Your task to perform on an android device: toggle sleep mode Image 0: 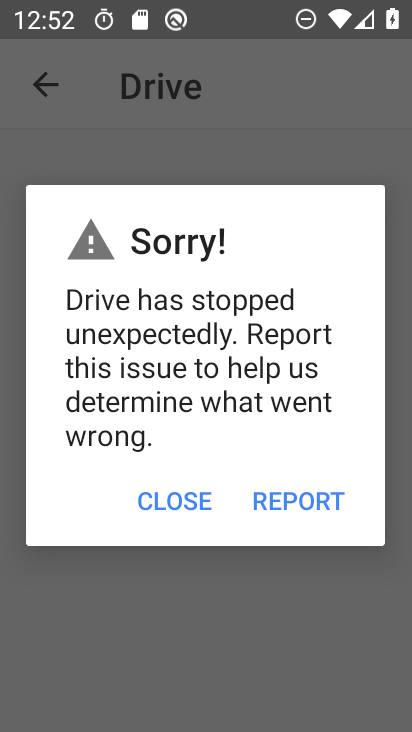
Step 0: press home button
Your task to perform on an android device: toggle sleep mode Image 1: 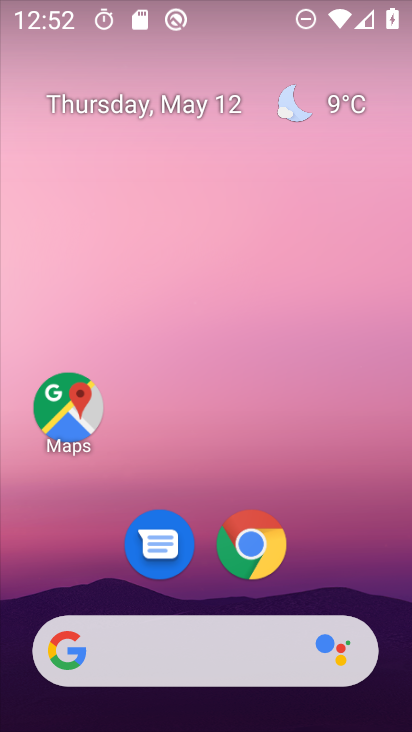
Step 1: drag from (221, 726) to (230, 75)
Your task to perform on an android device: toggle sleep mode Image 2: 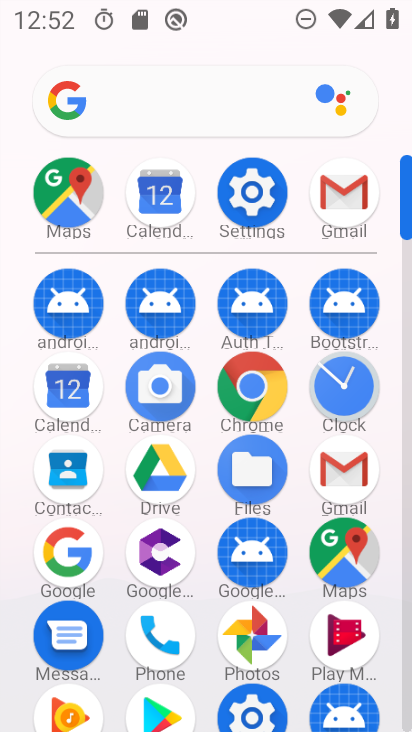
Step 2: click (247, 195)
Your task to perform on an android device: toggle sleep mode Image 3: 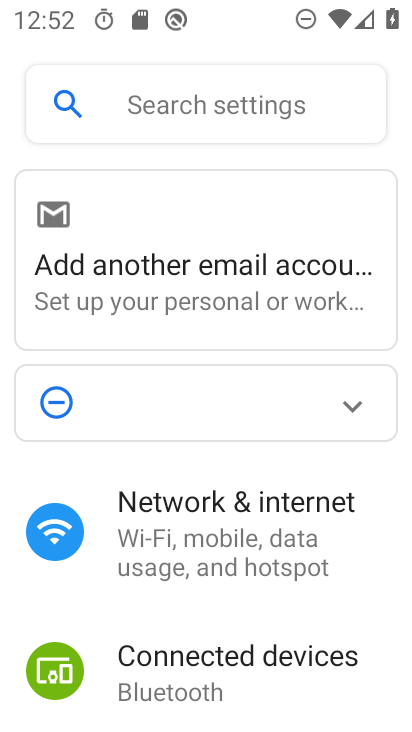
Step 3: drag from (226, 642) to (241, 259)
Your task to perform on an android device: toggle sleep mode Image 4: 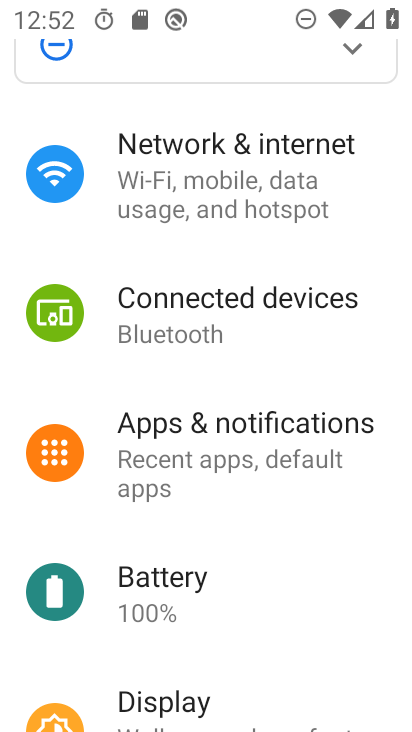
Step 4: drag from (275, 682) to (272, 278)
Your task to perform on an android device: toggle sleep mode Image 5: 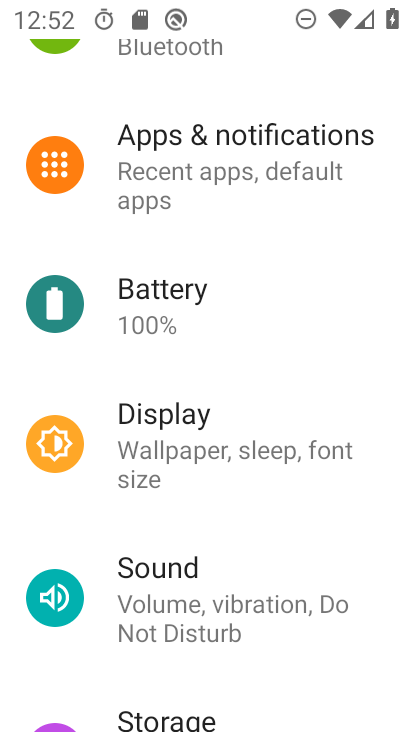
Step 5: drag from (223, 643) to (228, 235)
Your task to perform on an android device: toggle sleep mode Image 6: 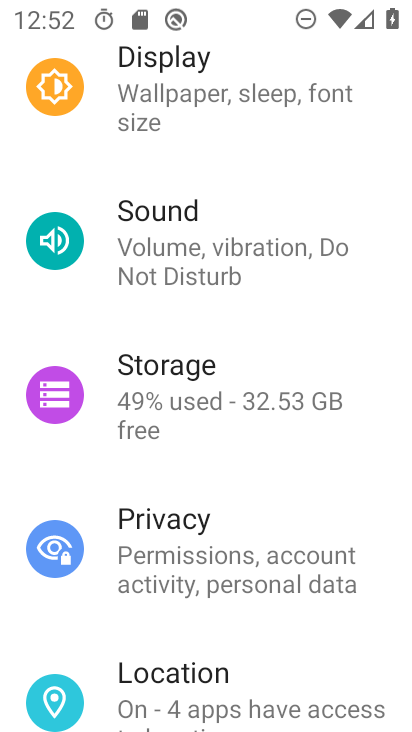
Step 6: drag from (247, 665) to (246, 270)
Your task to perform on an android device: toggle sleep mode Image 7: 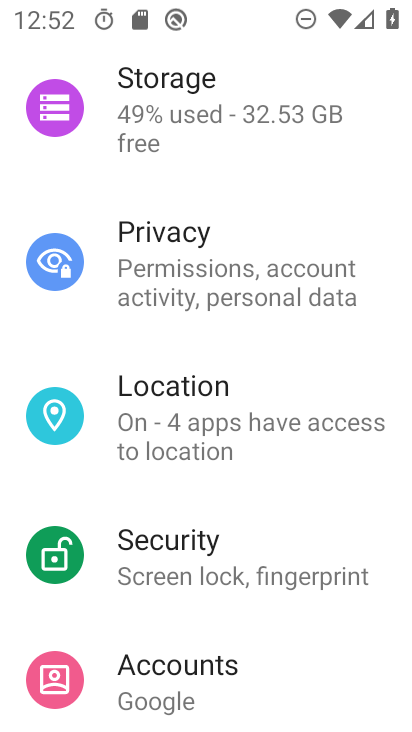
Step 7: drag from (229, 628) to (245, 240)
Your task to perform on an android device: toggle sleep mode Image 8: 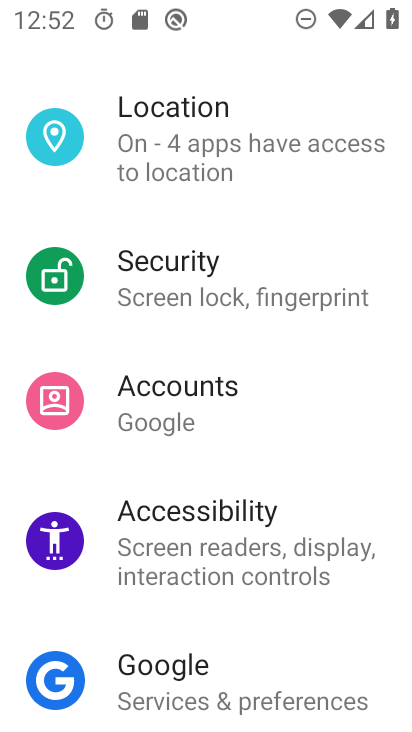
Step 8: drag from (254, 649) to (264, 211)
Your task to perform on an android device: toggle sleep mode Image 9: 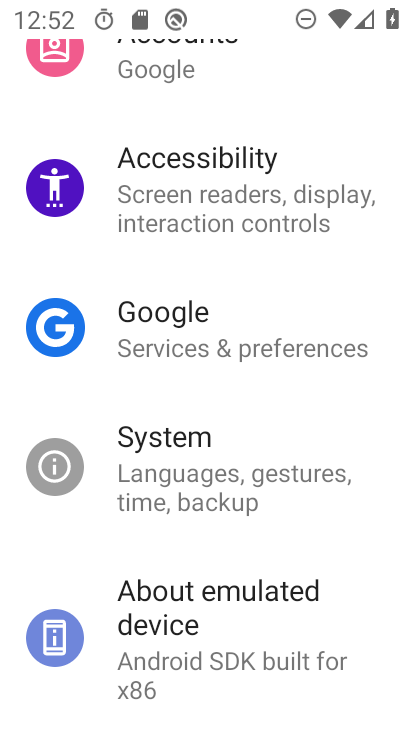
Step 9: drag from (246, 652) to (251, 312)
Your task to perform on an android device: toggle sleep mode Image 10: 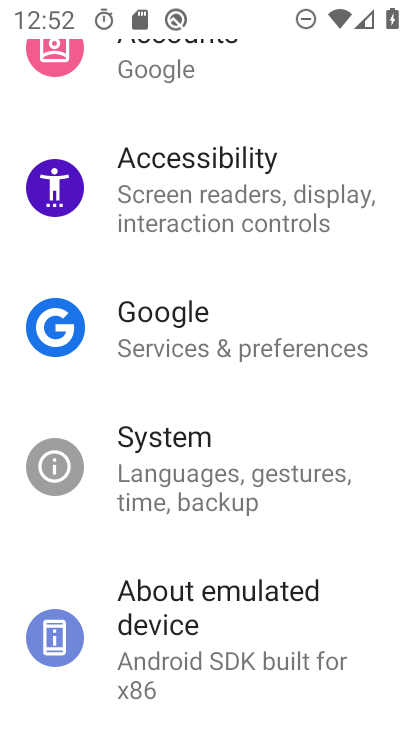
Step 10: drag from (281, 133) to (281, 652)
Your task to perform on an android device: toggle sleep mode Image 11: 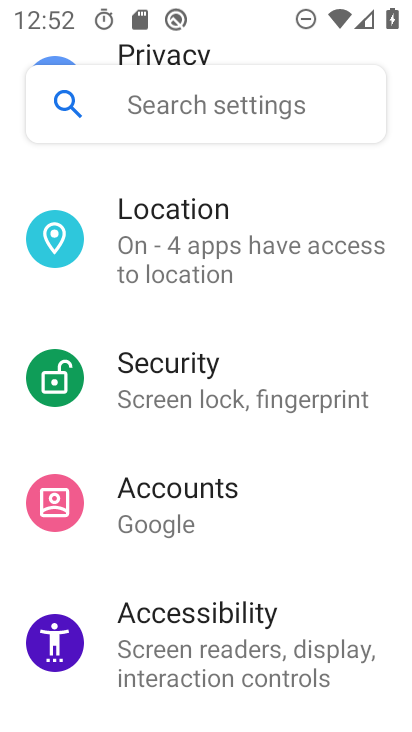
Step 11: drag from (265, 204) to (264, 654)
Your task to perform on an android device: toggle sleep mode Image 12: 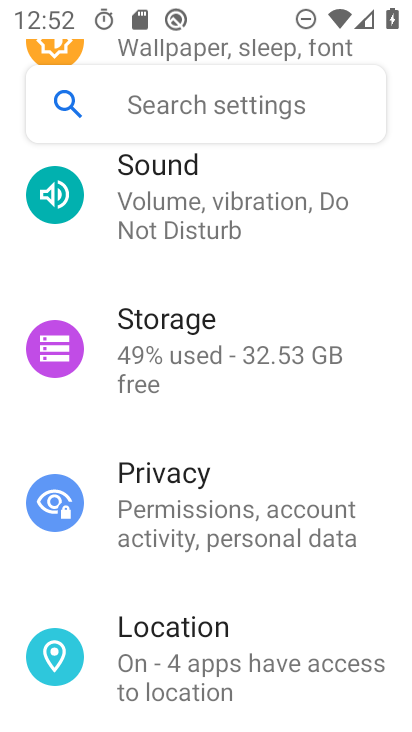
Step 12: drag from (264, 228) to (274, 570)
Your task to perform on an android device: toggle sleep mode Image 13: 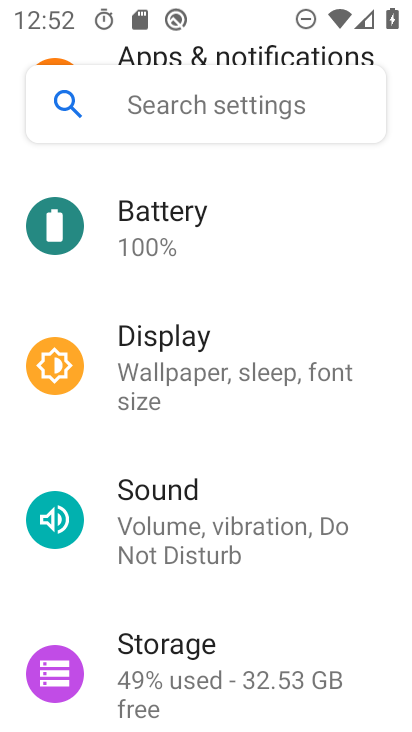
Step 13: drag from (260, 250) to (260, 377)
Your task to perform on an android device: toggle sleep mode Image 14: 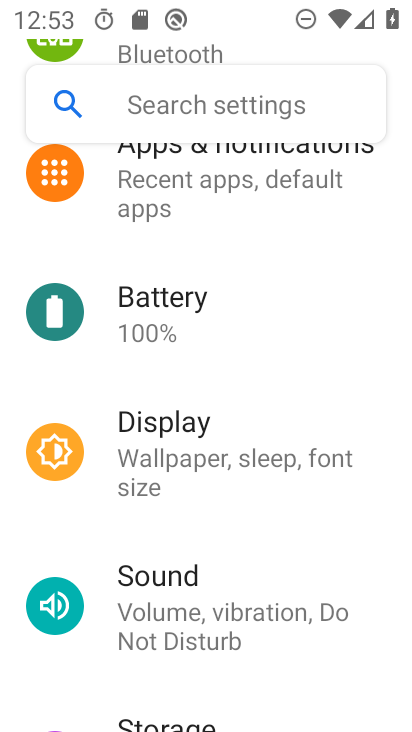
Step 14: click (216, 452)
Your task to perform on an android device: toggle sleep mode Image 15: 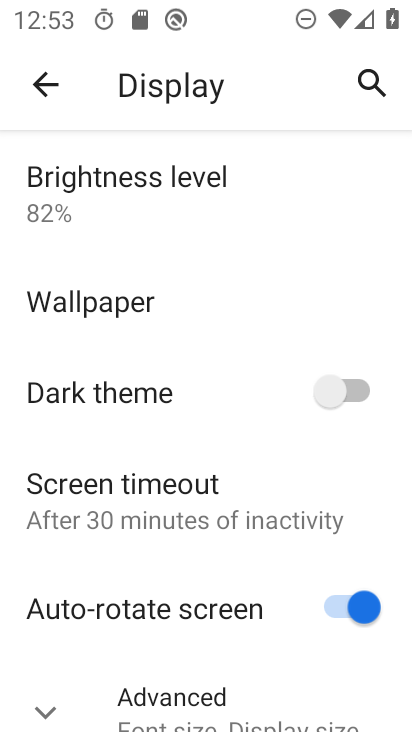
Step 15: task complete